Your task to perform on an android device: manage bookmarks in the chrome app Image 0: 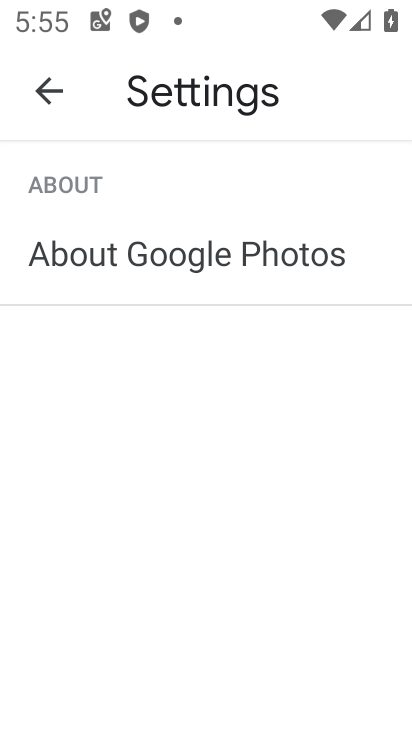
Step 0: press home button
Your task to perform on an android device: manage bookmarks in the chrome app Image 1: 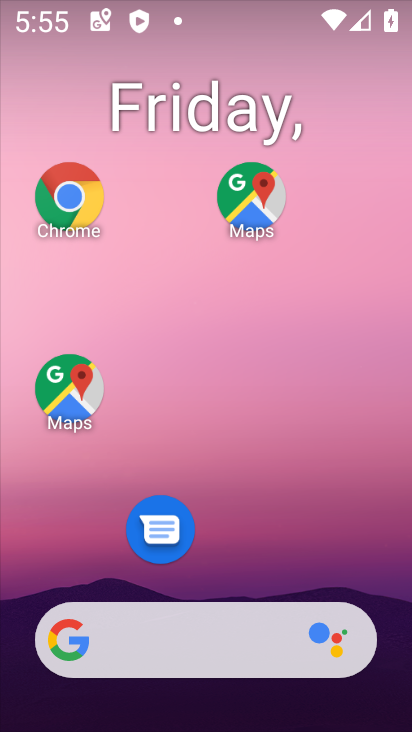
Step 1: click (84, 234)
Your task to perform on an android device: manage bookmarks in the chrome app Image 2: 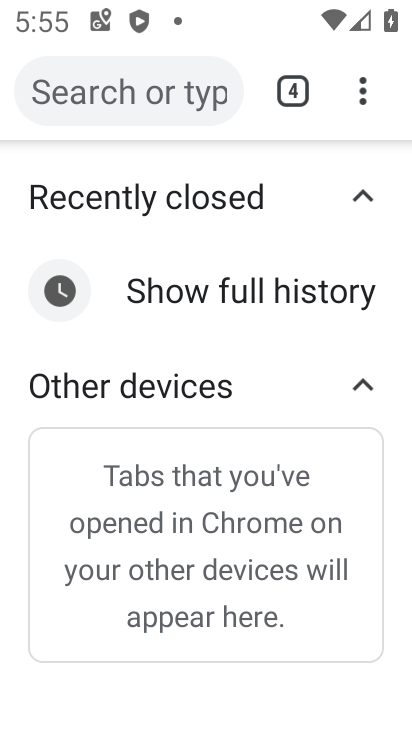
Step 2: click (366, 100)
Your task to perform on an android device: manage bookmarks in the chrome app Image 3: 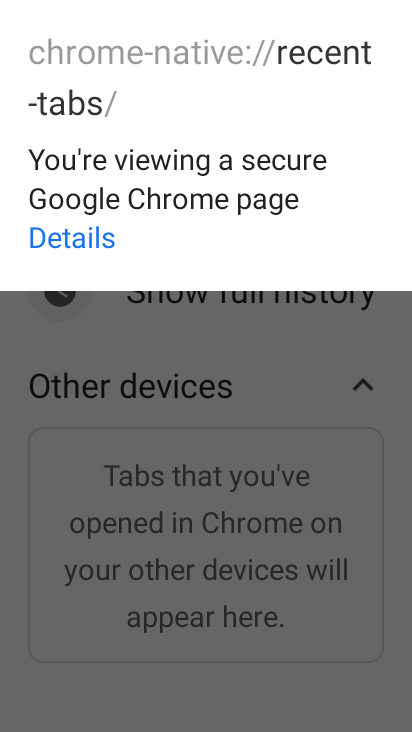
Step 3: click (255, 341)
Your task to perform on an android device: manage bookmarks in the chrome app Image 4: 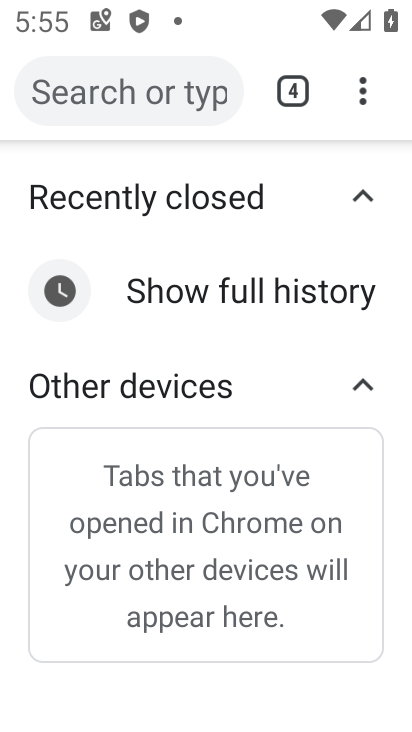
Step 4: click (356, 85)
Your task to perform on an android device: manage bookmarks in the chrome app Image 5: 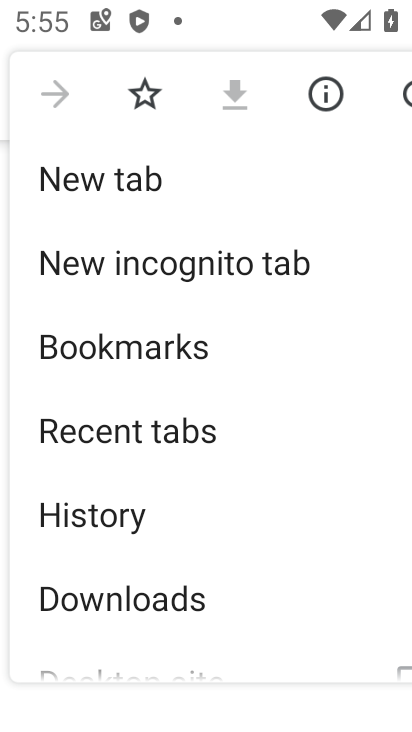
Step 5: drag from (133, 540) to (144, 282)
Your task to perform on an android device: manage bookmarks in the chrome app Image 6: 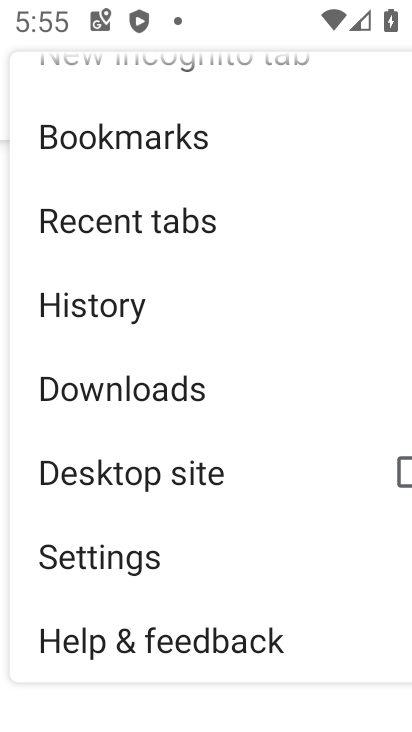
Step 6: click (134, 137)
Your task to perform on an android device: manage bookmarks in the chrome app Image 7: 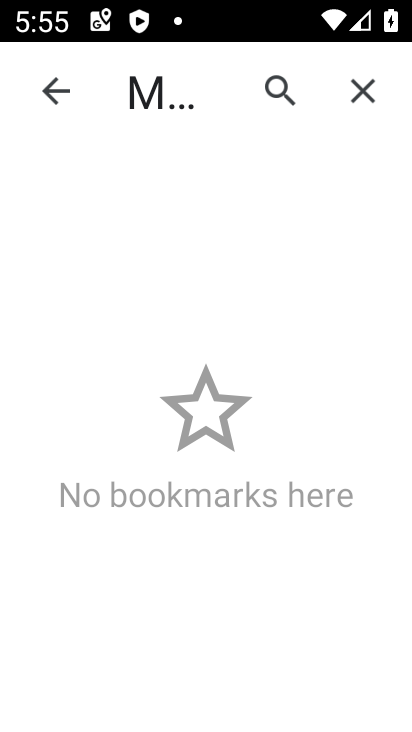
Step 7: task complete